Your task to perform on an android device: turn on the 24-hour format for clock Image 0: 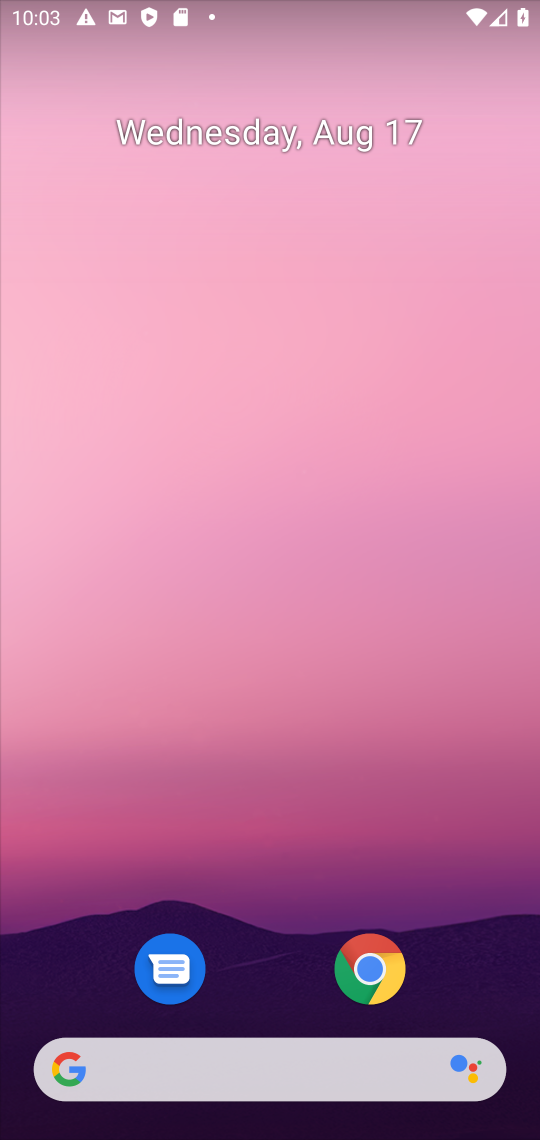
Step 0: drag from (268, 953) to (220, 287)
Your task to perform on an android device: turn on the 24-hour format for clock Image 1: 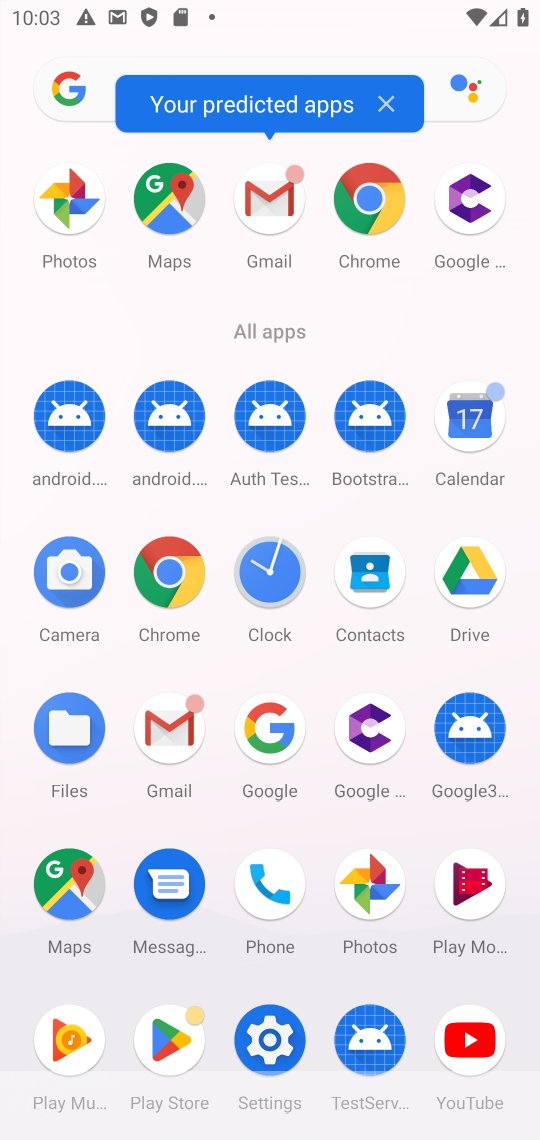
Step 1: click (276, 574)
Your task to perform on an android device: turn on the 24-hour format for clock Image 2: 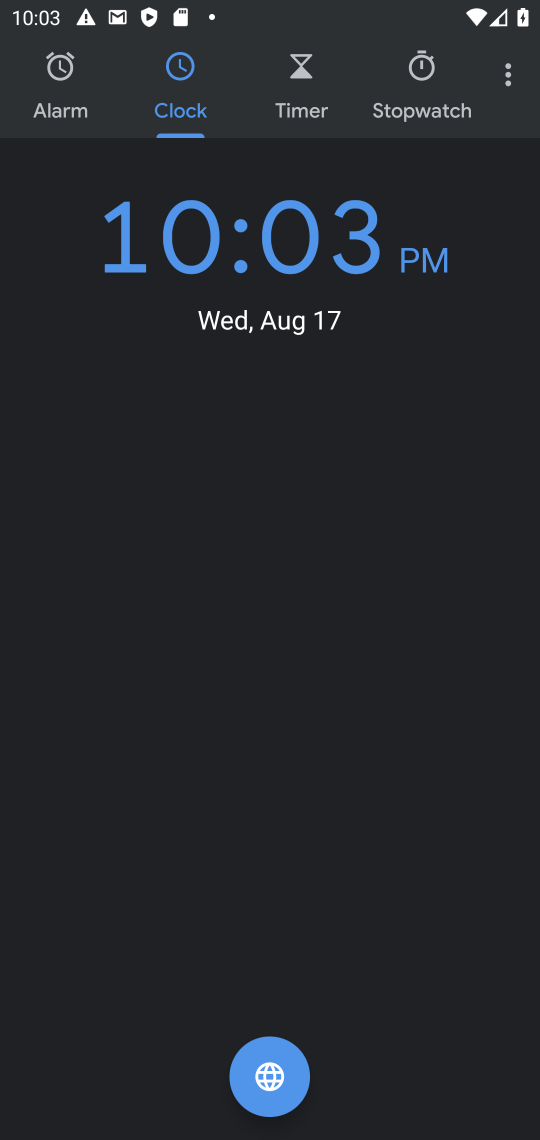
Step 2: click (503, 67)
Your task to perform on an android device: turn on the 24-hour format for clock Image 3: 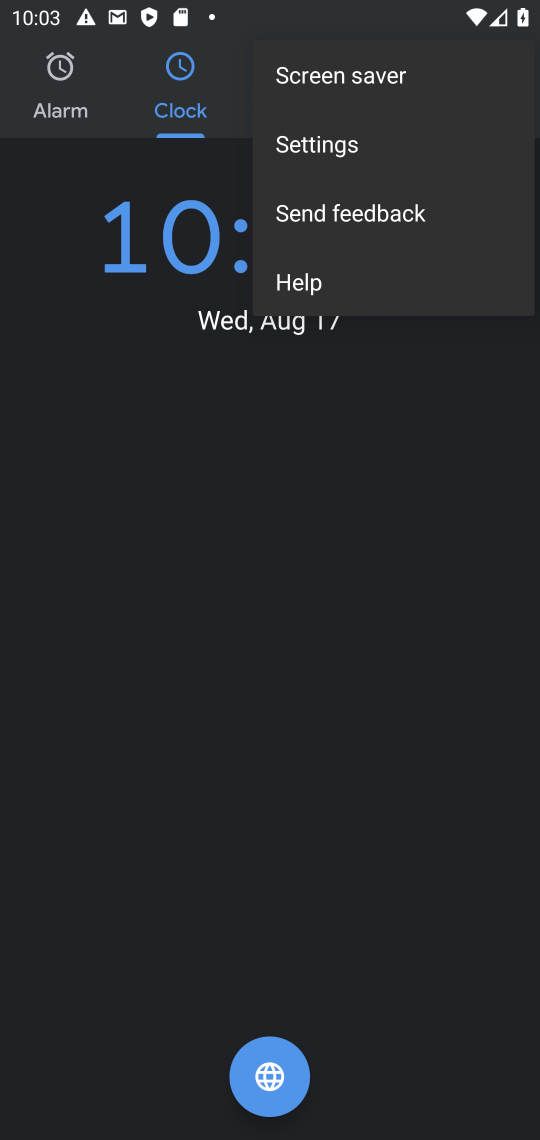
Step 3: click (354, 133)
Your task to perform on an android device: turn on the 24-hour format for clock Image 4: 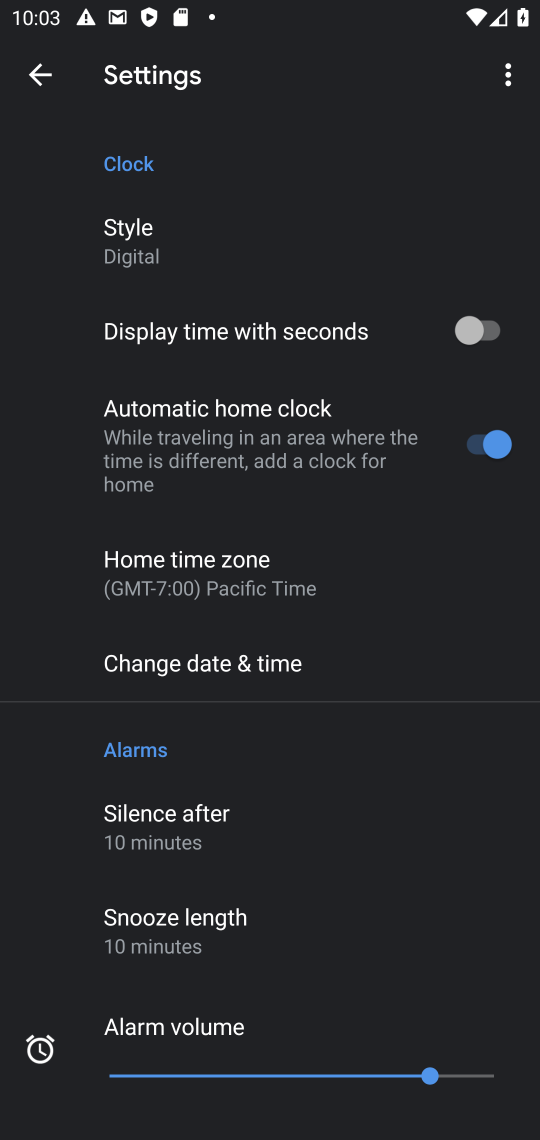
Step 4: click (210, 671)
Your task to perform on an android device: turn on the 24-hour format for clock Image 5: 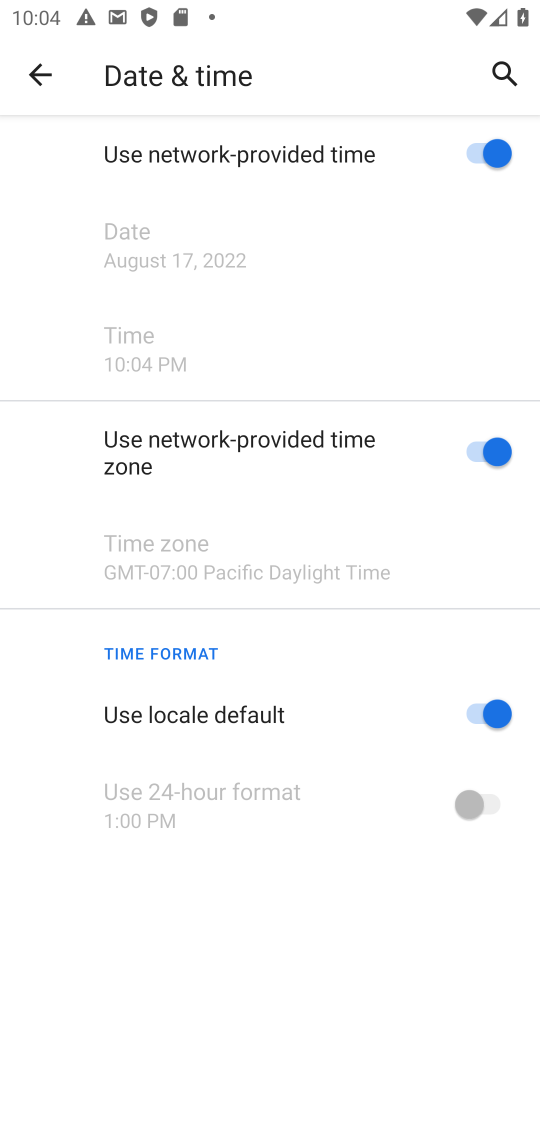
Step 5: click (479, 721)
Your task to perform on an android device: turn on the 24-hour format for clock Image 6: 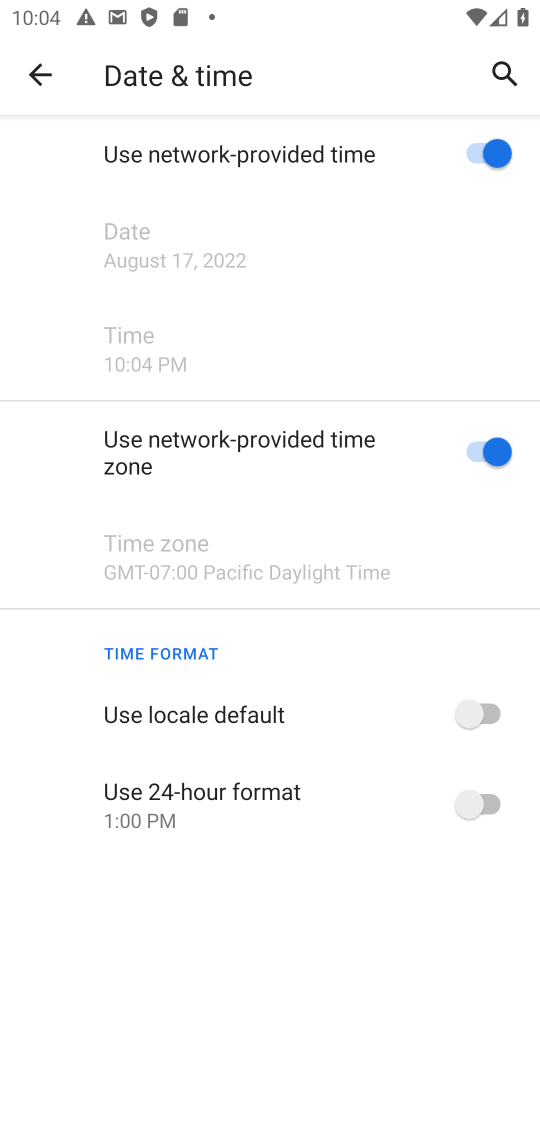
Step 6: click (465, 800)
Your task to perform on an android device: turn on the 24-hour format for clock Image 7: 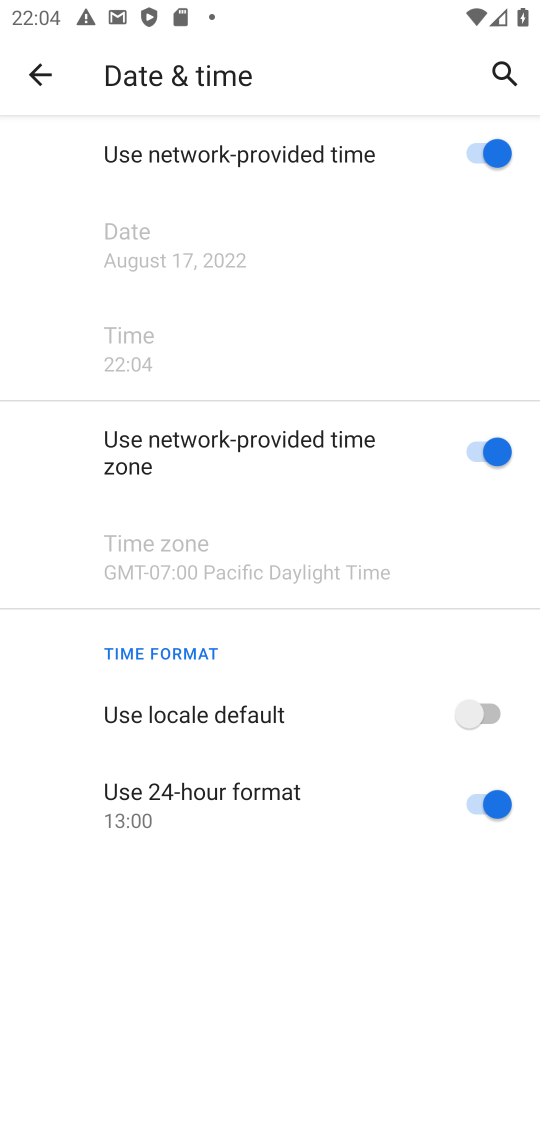
Step 7: task complete